Your task to perform on an android device: open sync settings in chrome Image 0: 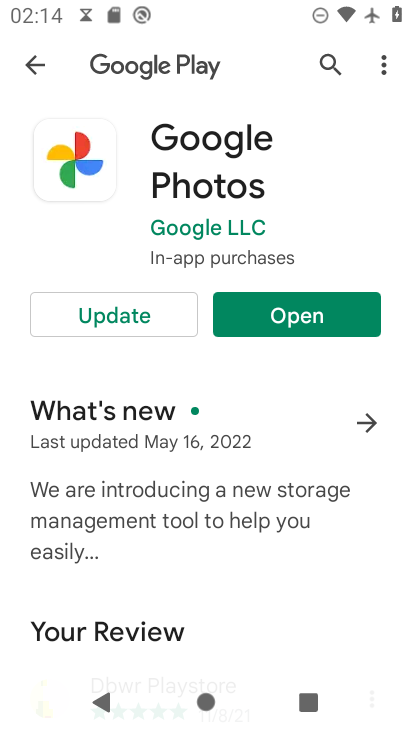
Step 0: press home button
Your task to perform on an android device: open sync settings in chrome Image 1: 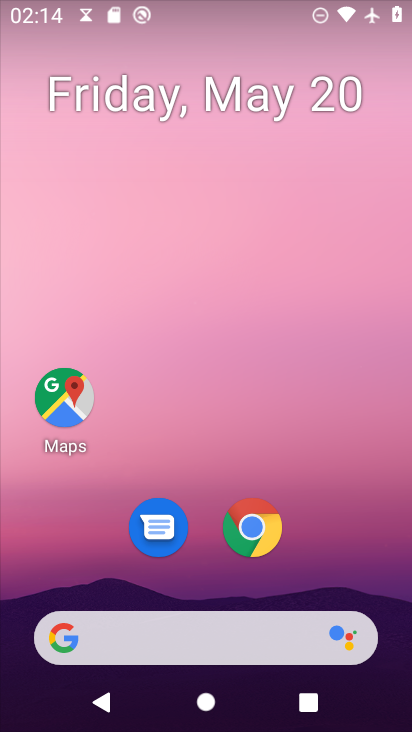
Step 1: click (248, 537)
Your task to perform on an android device: open sync settings in chrome Image 2: 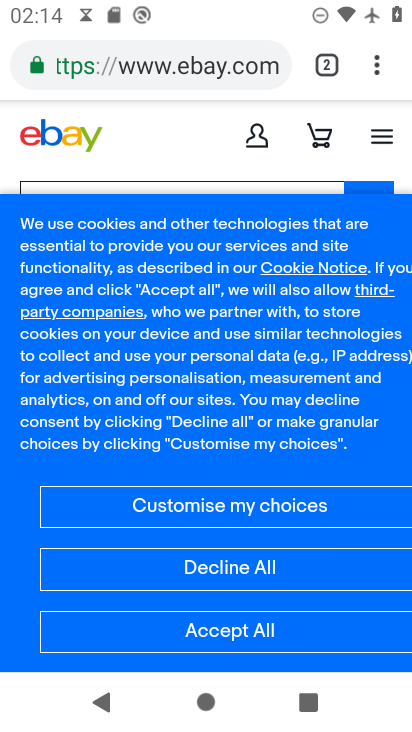
Step 2: drag from (378, 69) to (213, 579)
Your task to perform on an android device: open sync settings in chrome Image 3: 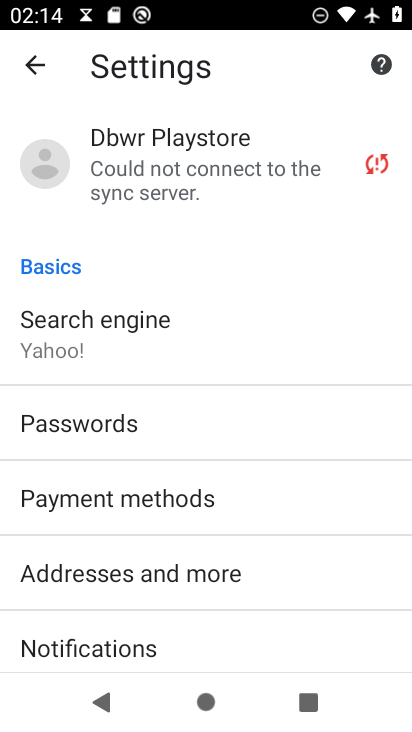
Step 3: click (199, 166)
Your task to perform on an android device: open sync settings in chrome Image 4: 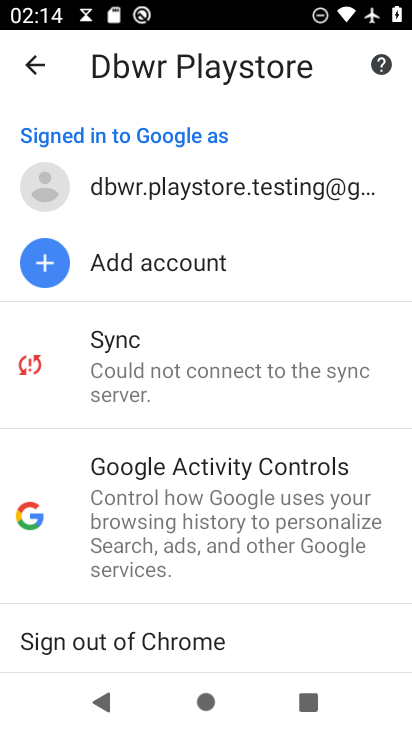
Step 4: click (143, 385)
Your task to perform on an android device: open sync settings in chrome Image 5: 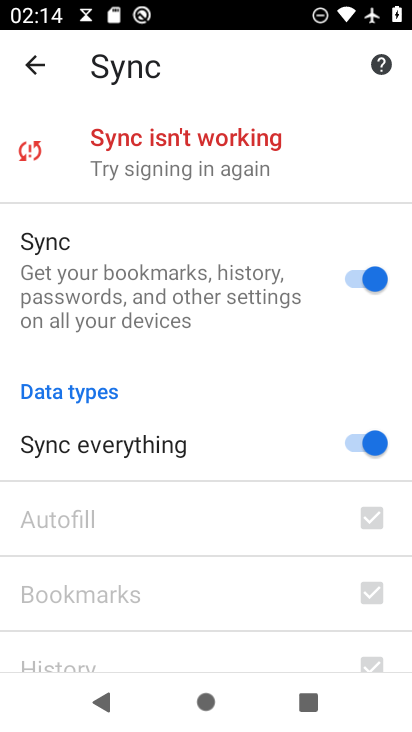
Step 5: task complete